Your task to perform on an android device: make emails show in primary in the gmail app Image 0: 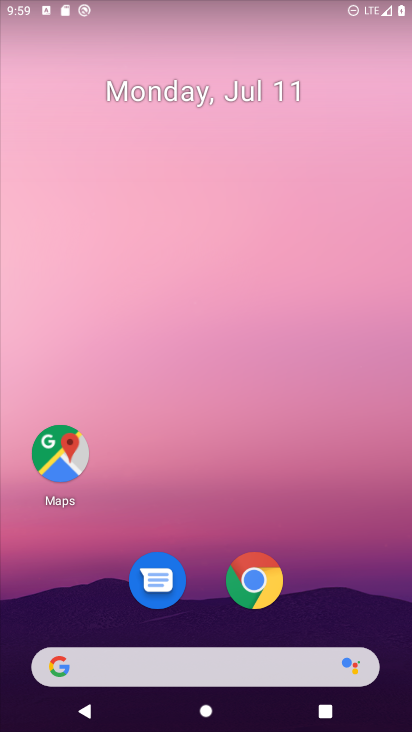
Step 0: drag from (273, 476) to (230, 28)
Your task to perform on an android device: make emails show in primary in the gmail app Image 1: 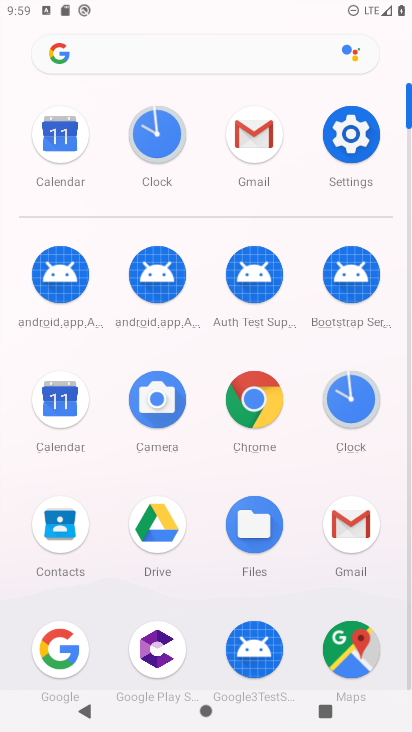
Step 1: click (253, 136)
Your task to perform on an android device: make emails show in primary in the gmail app Image 2: 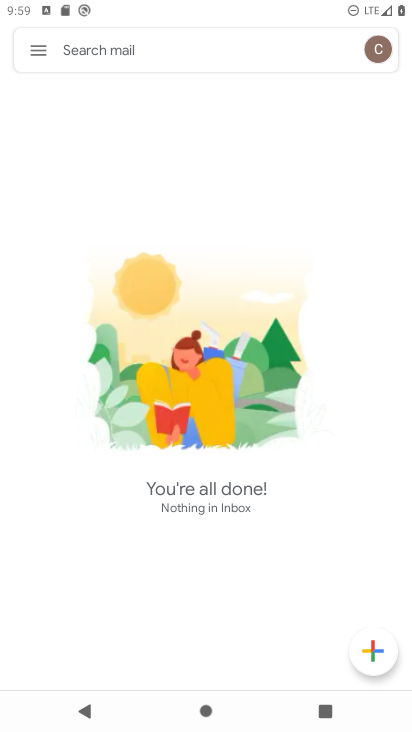
Step 2: click (32, 50)
Your task to perform on an android device: make emails show in primary in the gmail app Image 3: 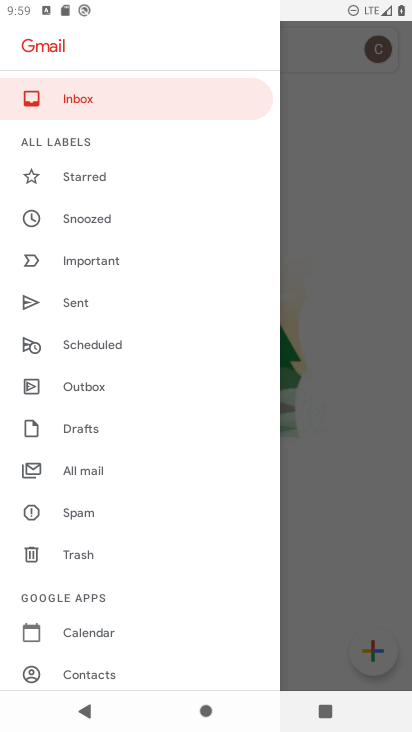
Step 3: drag from (146, 504) to (139, 356)
Your task to perform on an android device: make emails show in primary in the gmail app Image 4: 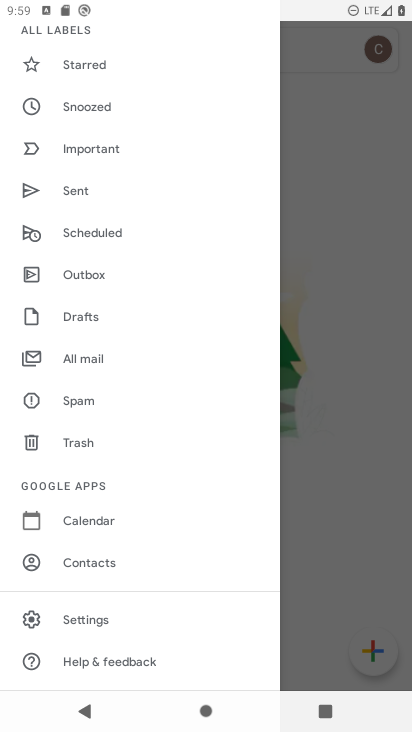
Step 4: click (104, 623)
Your task to perform on an android device: make emails show in primary in the gmail app Image 5: 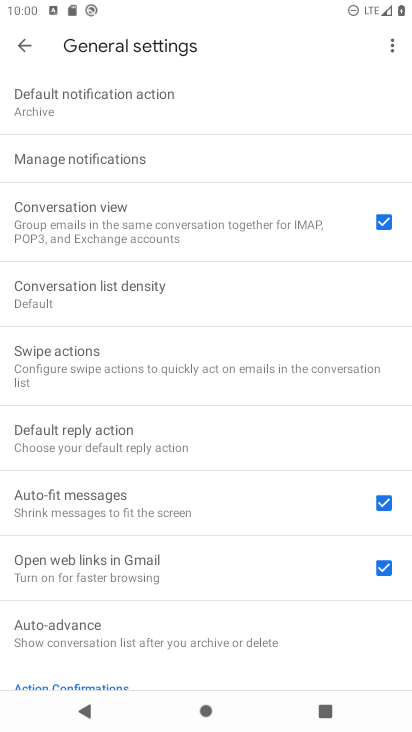
Step 5: click (30, 36)
Your task to perform on an android device: make emails show in primary in the gmail app Image 6: 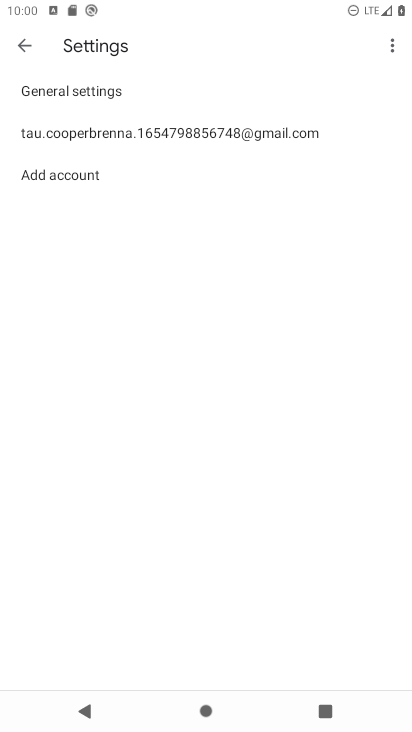
Step 6: click (111, 133)
Your task to perform on an android device: make emails show in primary in the gmail app Image 7: 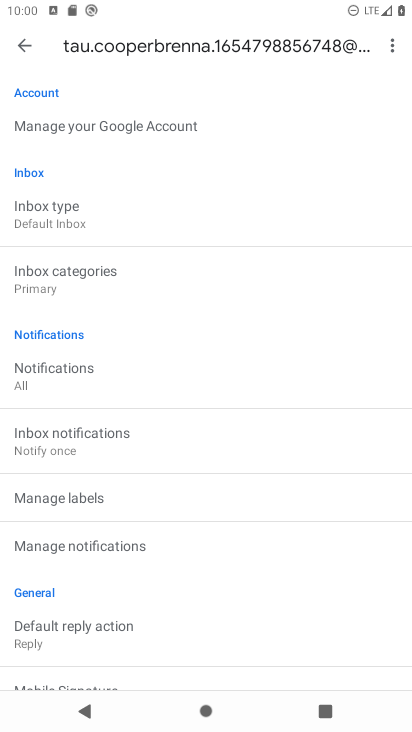
Step 7: click (81, 272)
Your task to perform on an android device: make emails show in primary in the gmail app Image 8: 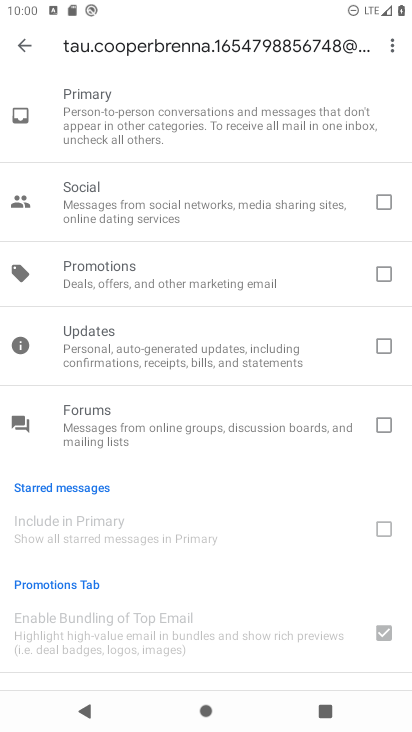
Step 8: click (20, 42)
Your task to perform on an android device: make emails show in primary in the gmail app Image 9: 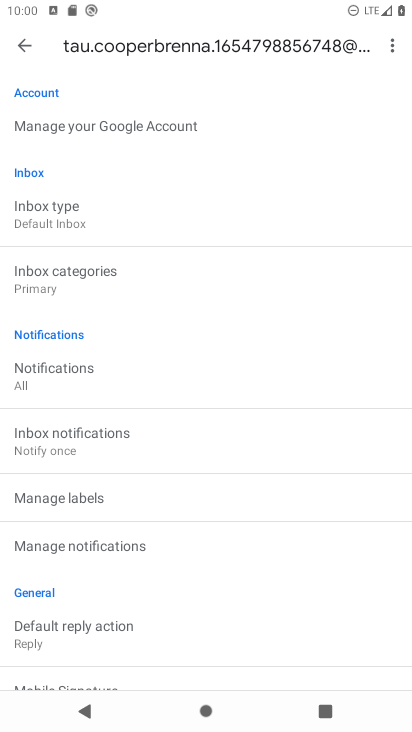
Step 9: task complete